Your task to perform on an android device: turn off sleep mode Image 0: 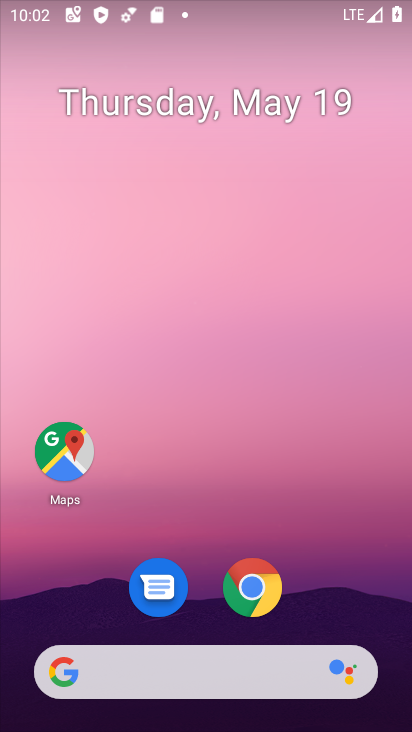
Step 0: drag from (189, 618) to (221, 88)
Your task to perform on an android device: turn off sleep mode Image 1: 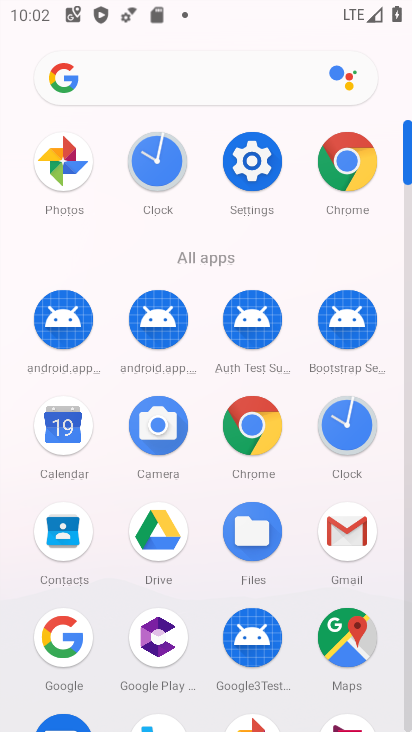
Step 1: click (247, 165)
Your task to perform on an android device: turn off sleep mode Image 2: 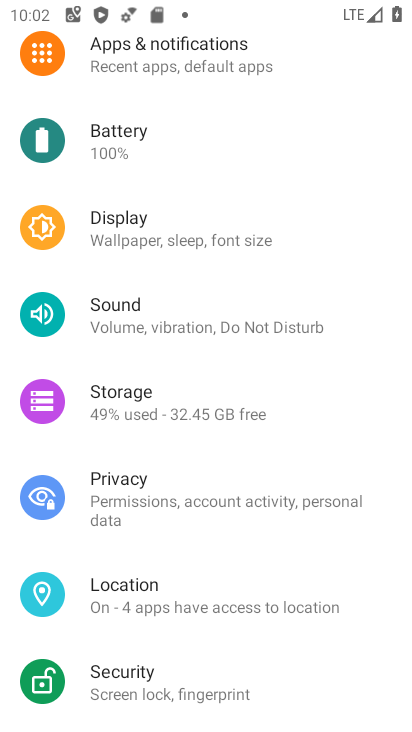
Step 2: click (182, 328)
Your task to perform on an android device: turn off sleep mode Image 3: 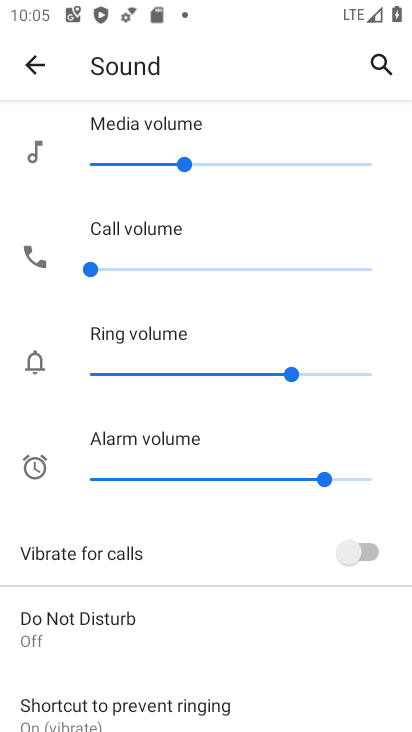
Step 3: task complete